Your task to perform on an android device: check the backup settings in the google photos Image 0: 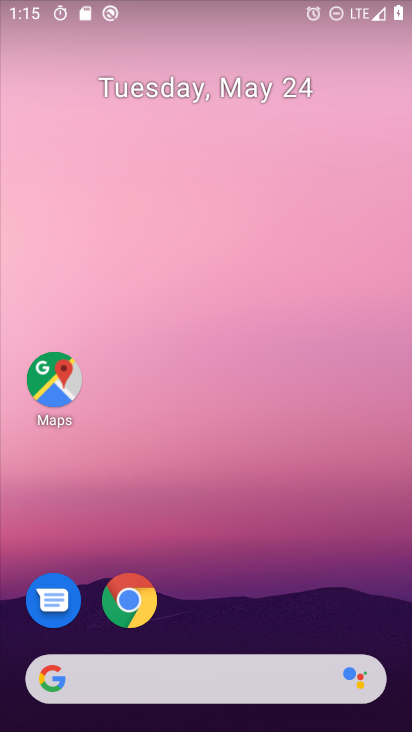
Step 0: drag from (273, 539) to (239, 161)
Your task to perform on an android device: check the backup settings in the google photos Image 1: 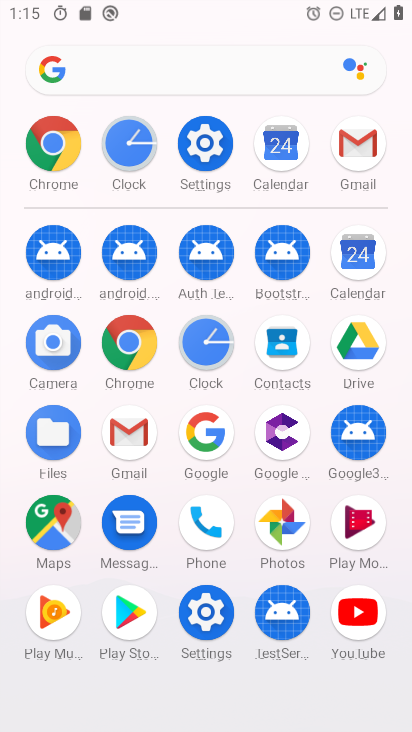
Step 1: click (268, 524)
Your task to perform on an android device: check the backup settings in the google photos Image 2: 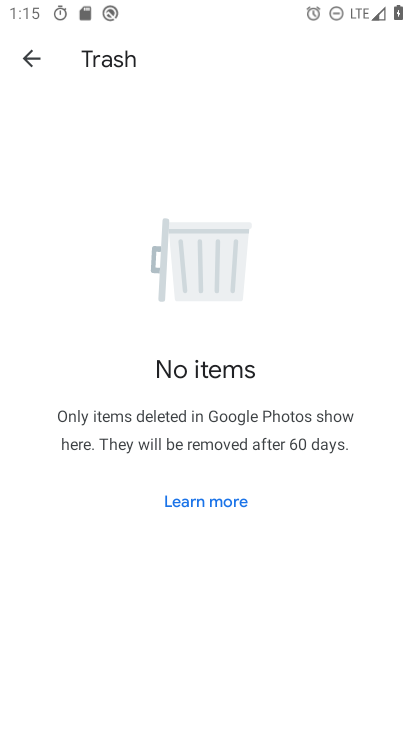
Step 2: click (36, 64)
Your task to perform on an android device: check the backup settings in the google photos Image 3: 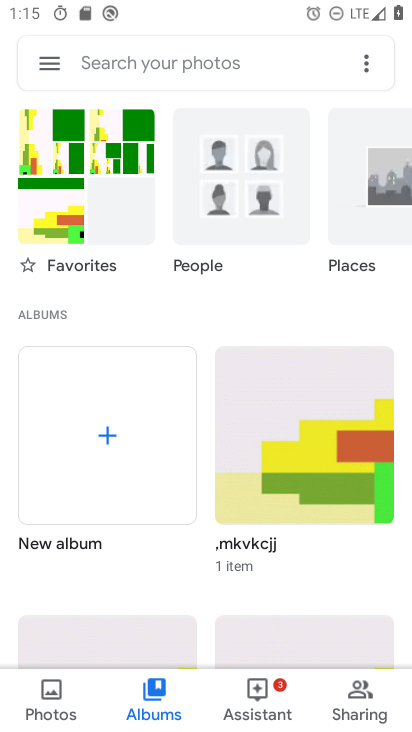
Step 3: click (52, 60)
Your task to perform on an android device: check the backup settings in the google photos Image 4: 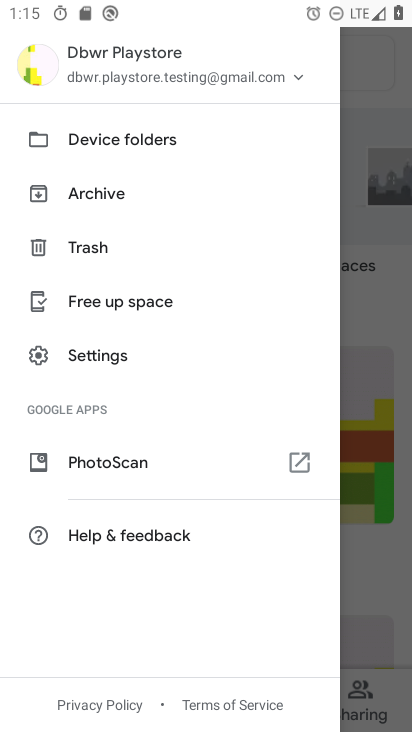
Step 4: click (92, 347)
Your task to perform on an android device: check the backup settings in the google photos Image 5: 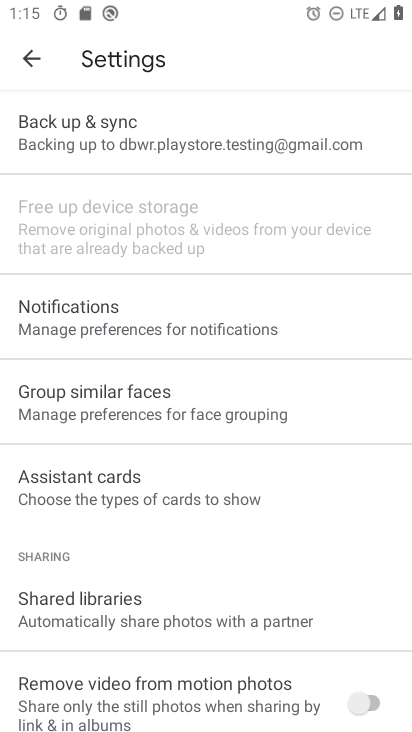
Step 5: click (151, 145)
Your task to perform on an android device: check the backup settings in the google photos Image 6: 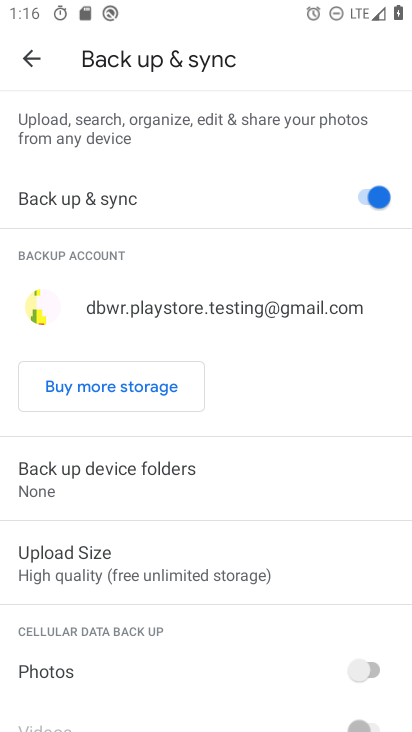
Step 6: task complete